Your task to perform on an android device: Go to accessibility settings Image 0: 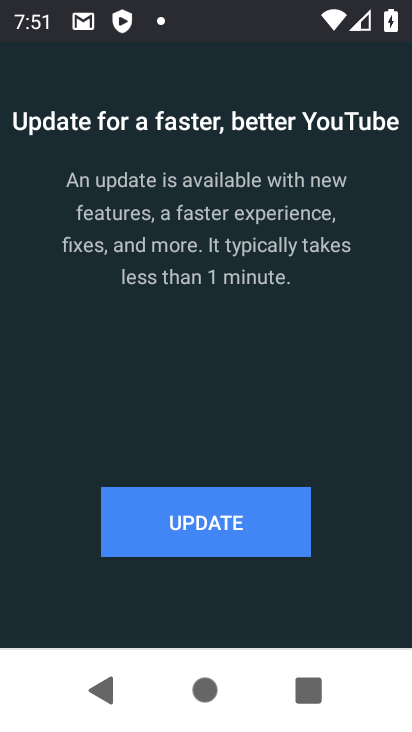
Step 0: press home button
Your task to perform on an android device: Go to accessibility settings Image 1: 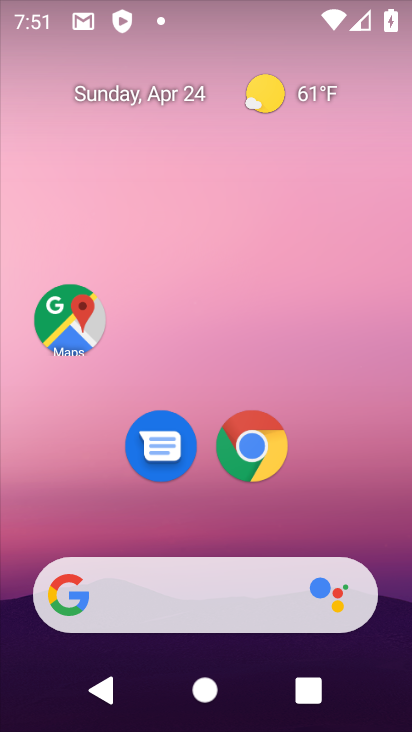
Step 1: drag from (177, 635) to (96, 38)
Your task to perform on an android device: Go to accessibility settings Image 2: 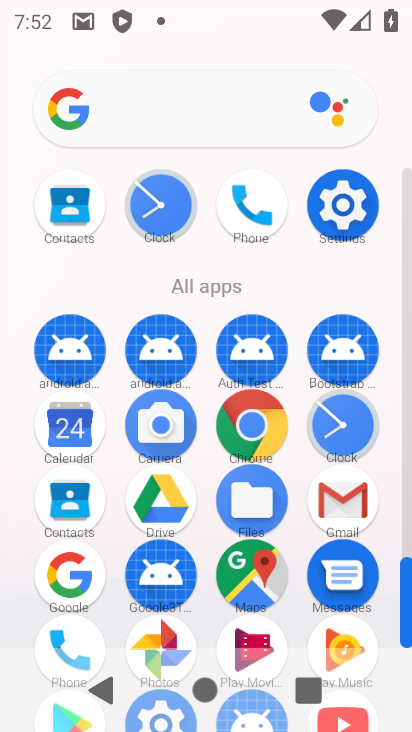
Step 2: click (352, 226)
Your task to perform on an android device: Go to accessibility settings Image 3: 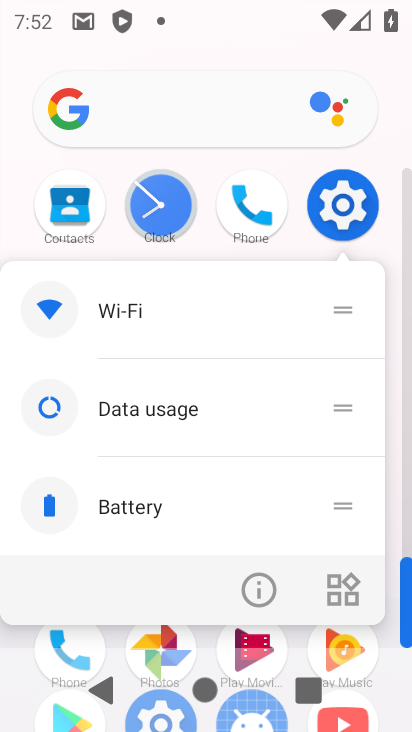
Step 3: click (364, 195)
Your task to perform on an android device: Go to accessibility settings Image 4: 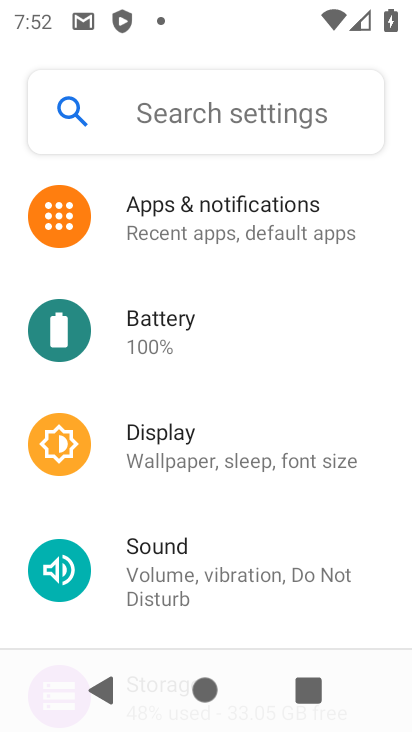
Step 4: drag from (191, 522) to (205, 105)
Your task to perform on an android device: Go to accessibility settings Image 5: 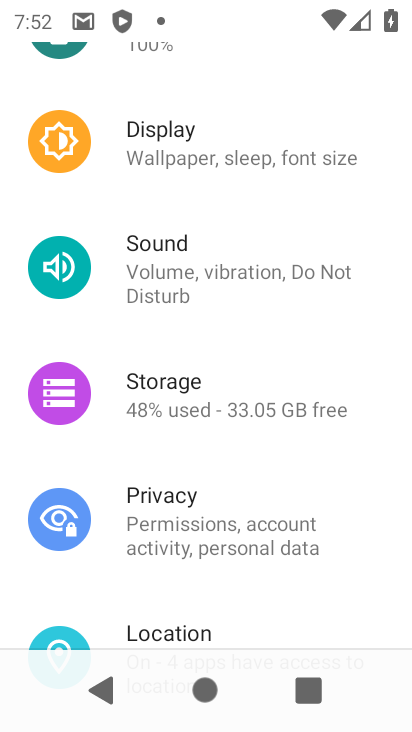
Step 5: drag from (181, 166) to (202, 18)
Your task to perform on an android device: Go to accessibility settings Image 6: 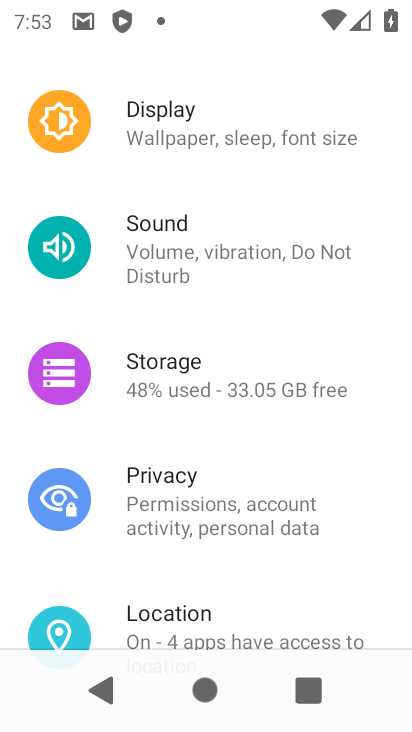
Step 6: drag from (251, 456) to (366, 13)
Your task to perform on an android device: Go to accessibility settings Image 7: 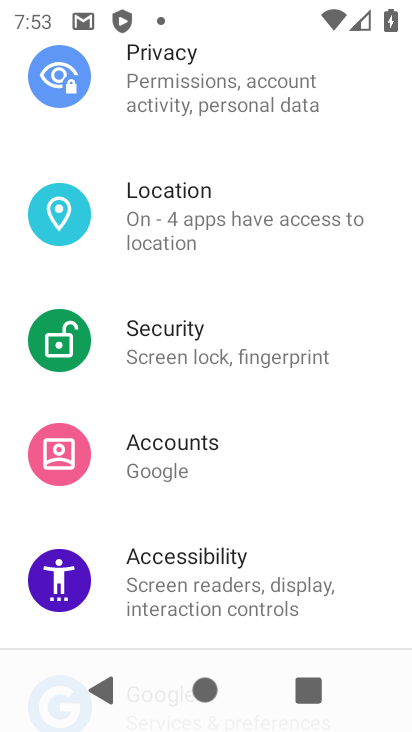
Step 7: click (216, 556)
Your task to perform on an android device: Go to accessibility settings Image 8: 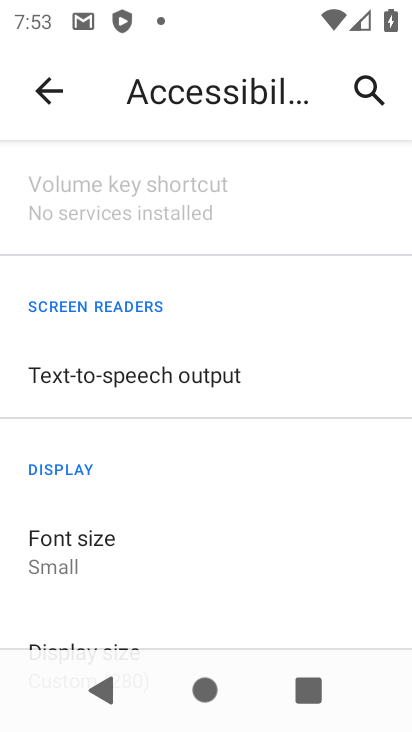
Step 8: task complete